Your task to perform on an android device: install app "AliExpress" Image 0: 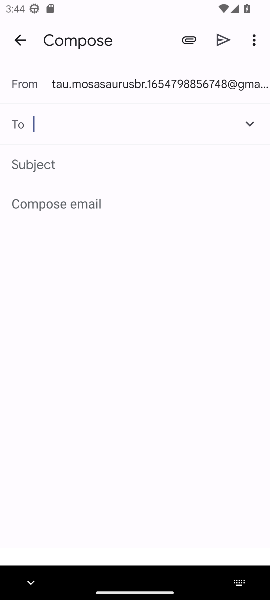
Step 0: press home button
Your task to perform on an android device: install app "AliExpress" Image 1: 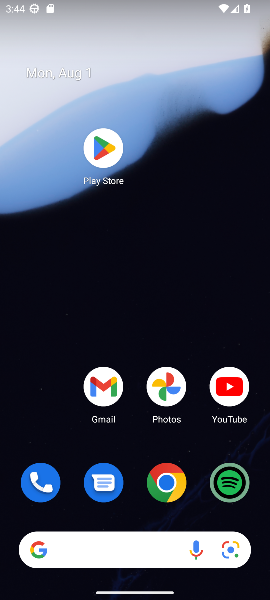
Step 1: click (101, 149)
Your task to perform on an android device: install app "AliExpress" Image 2: 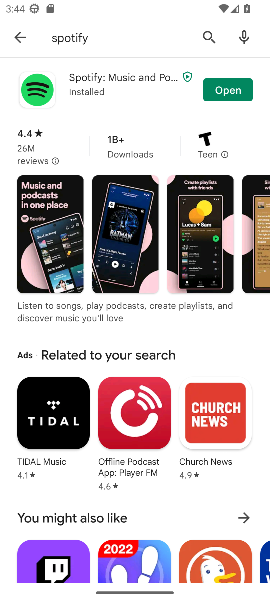
Step 2: click (212, 32)
Your task to perform on an android device: install app "AliExpress" Image 3: 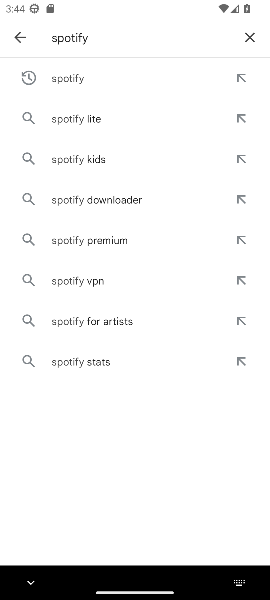
Step 3: click (247, 37)
Your task to perform on an android device: install app "AliExpress" Image 4: 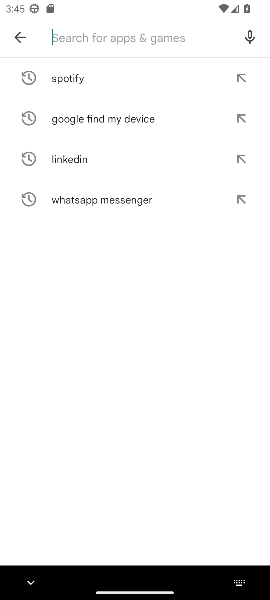
Step 4: type "AliExpress"
Your task to perform on an android device: install app "AliExpress" Image 5: 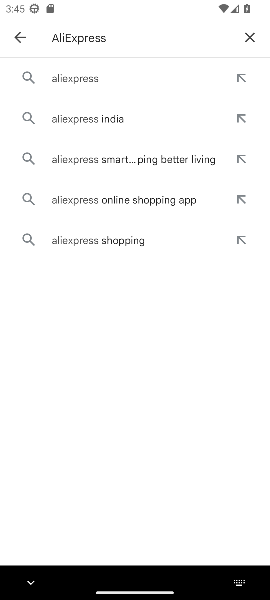
Step 5: click (81, 74)
Your task to perform on an android device: install app "AliExpress" Image 6: 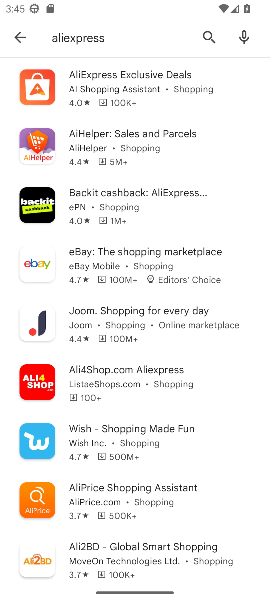
Step 6: click (130, 86)
Your task to perform on an android device: install app "AliExpress" Image 7: 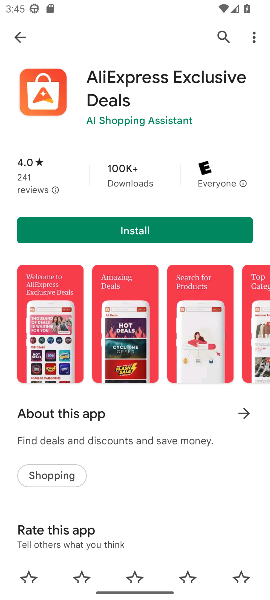
Step 7: click (141, 231)
Your task to perform on an android device: install app "AliExpress" Image 8: 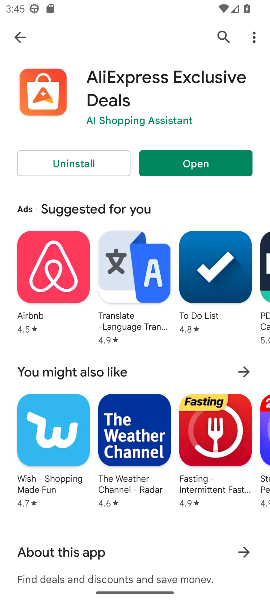
Step 8: task complete